Your task to perform on an android device: create a new album in the google photos Image 0: 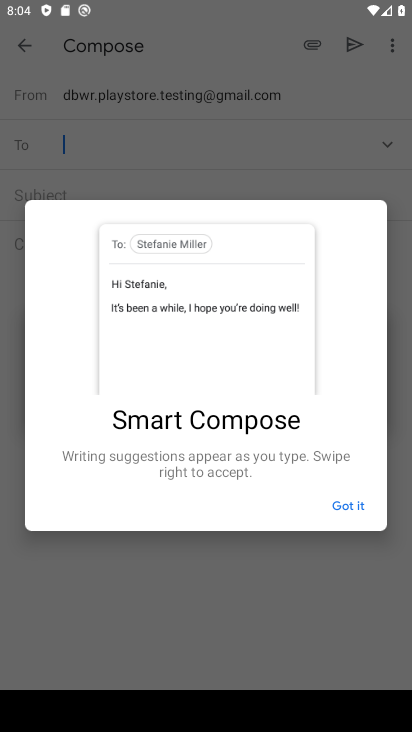
Step 0: press home button
Your task to perform on an android device: create a new album in the google photos Image 1: 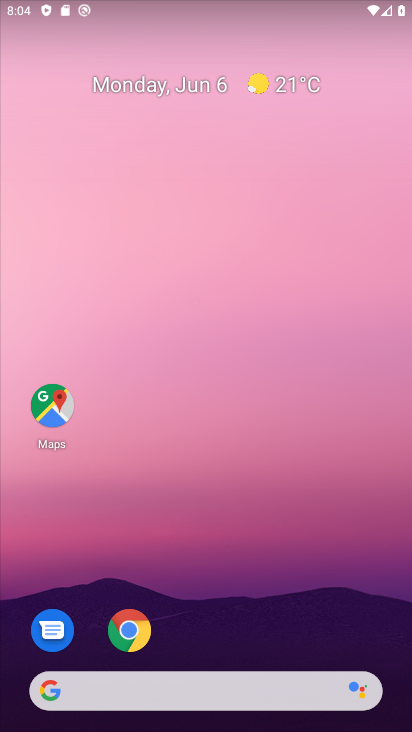
Step 1: drag from (176, 660) to (270, 127)
Your task to perform on an android device: create a new album in the google photos Image 2: 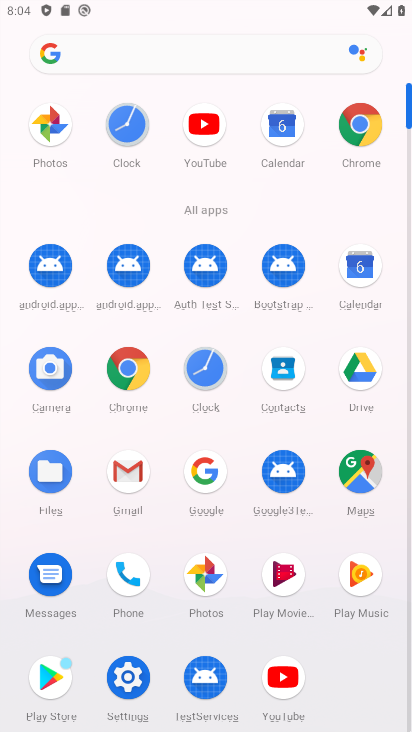
Step 2: click (205, 577)
Your task to perform on an android device: create a new album in the google photos Image 3: 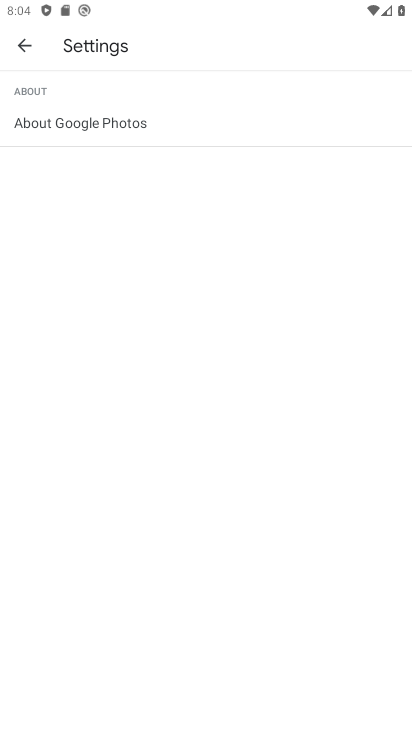
Step 3: click (35, 52)
Your task to perform on an android device: create a new album in the google photos Image 4: 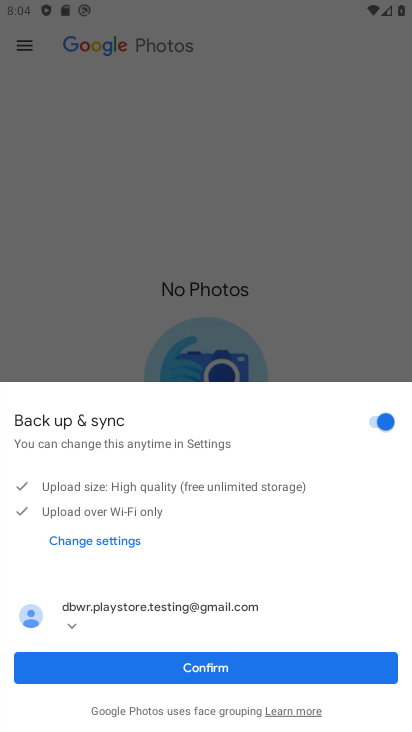
Step 4: click (204, 664)
Your task to perform on an android device: create a new album in the google photos Image 5: 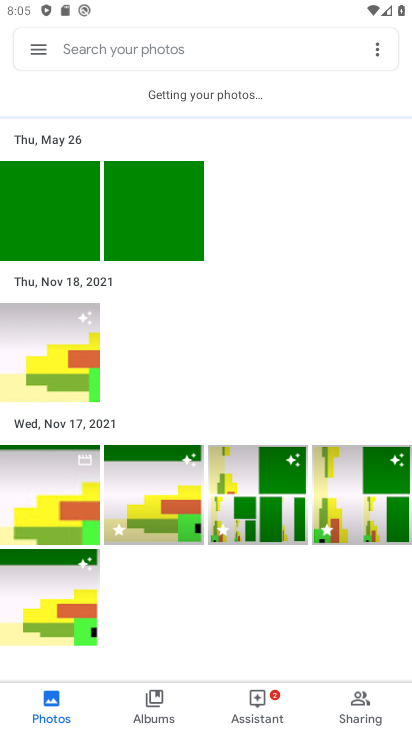
Step 5: click (65, 485)
Your task to perform on an android device: create a new album in the google photos Image 6: 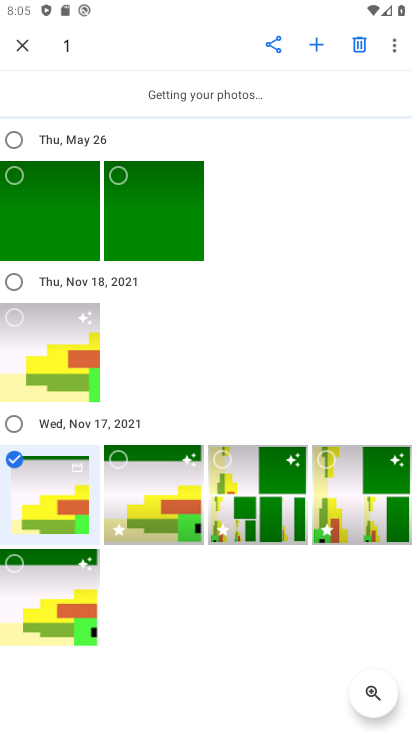
Step 6: click (13, 430)
Your task to perform on an android device: create a new album in the google photos Image 7: 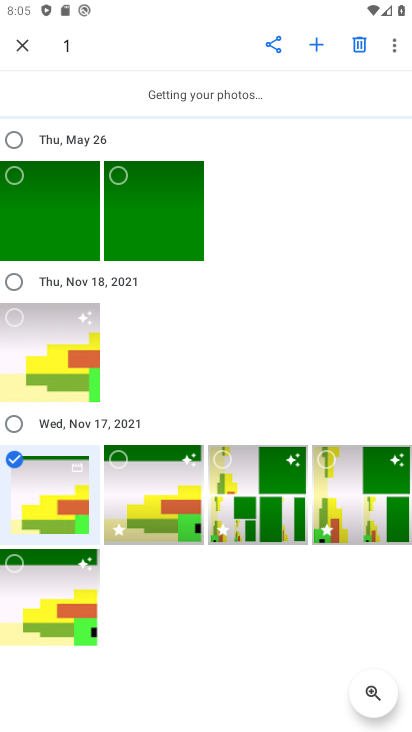
Step 7: click (8, 420)
Your task to perform on an android device: create a new album in the google photos Image 8: 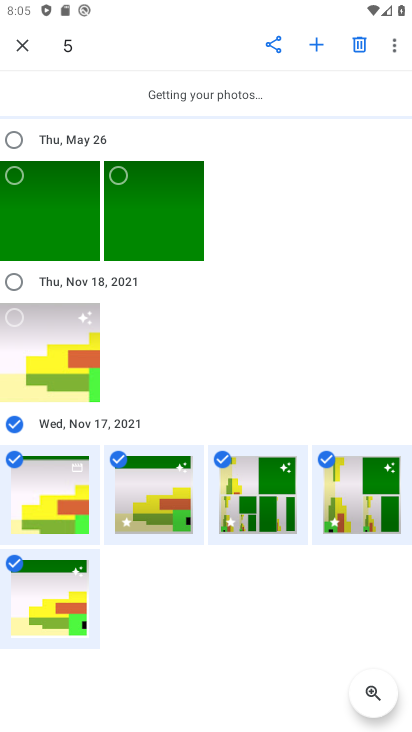
Step 8: click (319, 49)
Your task to perform on an android device: create a new album in the google photos Image 9: 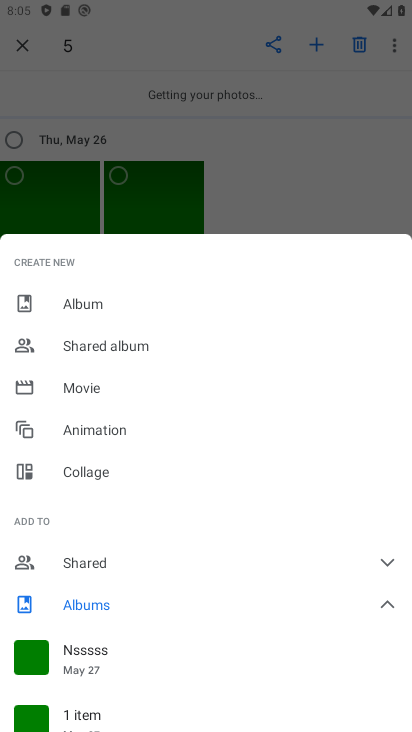
Step 9: click (155, 311)
Your task to perform on an android device: create a new album in the google photos Image 10: 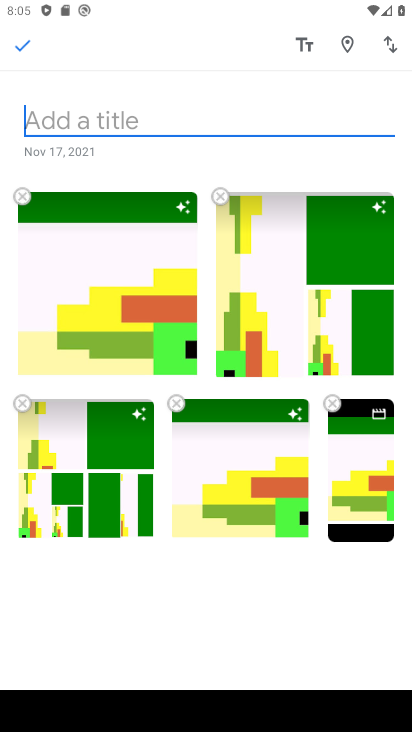
Step 10: click (110, 114)
Your task to perform on an android device: create a new album in the google photos Image 11: 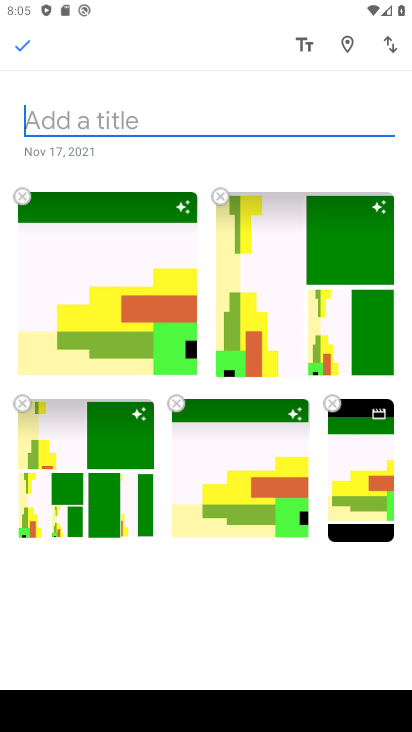
Step 11: type "xcxc"
Your task to perform on an android device: create a new album in the google photos Image 12: 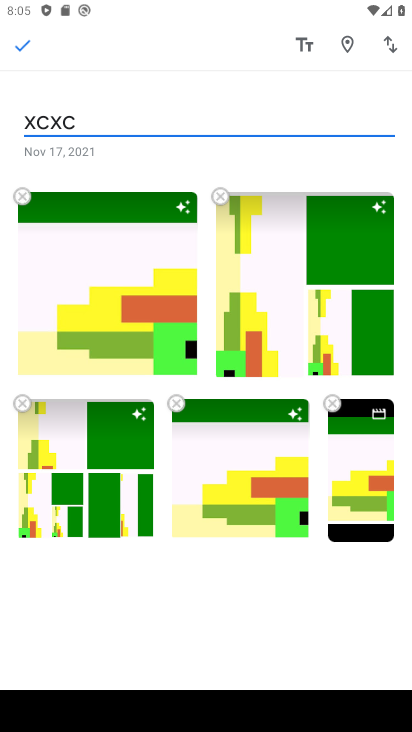
Step 12: click (21, 45)
Your task to perform on an android device: create a new album in the google photos Image 13: 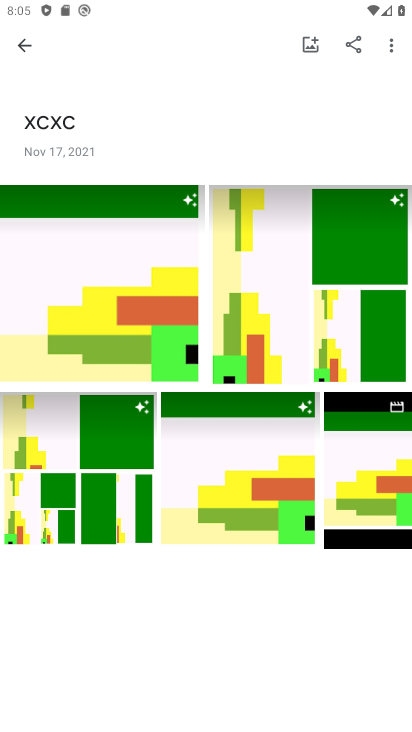
Step 13: task complete